Your task to perform on an android device: Show me popular games on the Play Store Image 0: 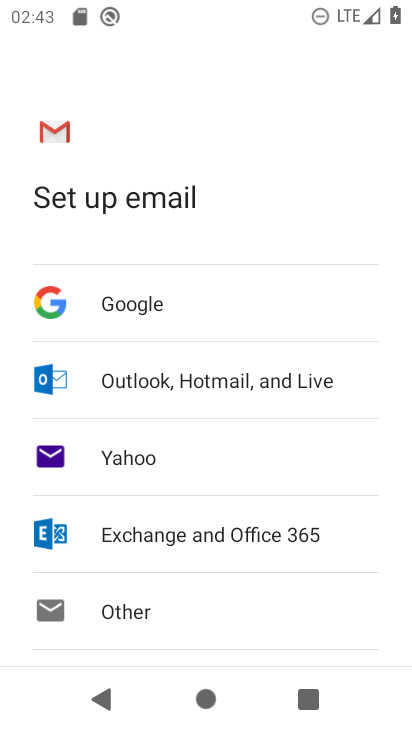
Step 0: press home button
Your task to perform on an android device: Show me popular games on the Play Store Image 1: 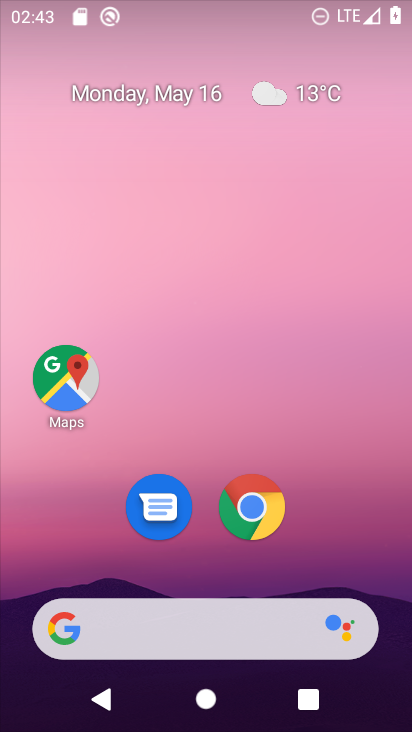
Step 1: drag from (335, 536) to (245, 55)
Your task to perform on an android device: Show me popular games on the Play Store Image 2: 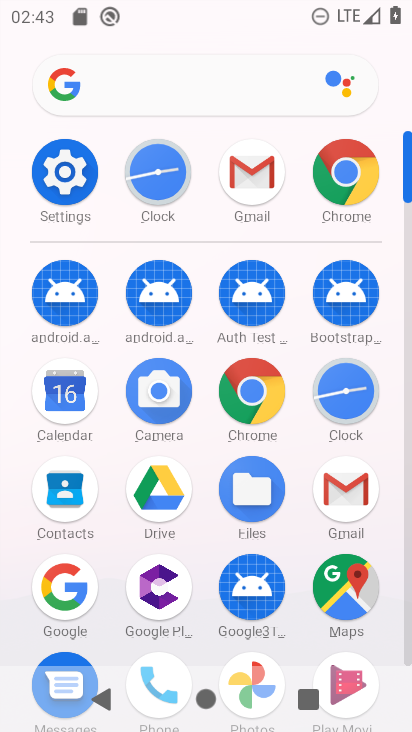
Step 2: drag from (315, 588) to (257, 141)
Your task to perform on an android device: Show me popular games on the Play Store Image 3: 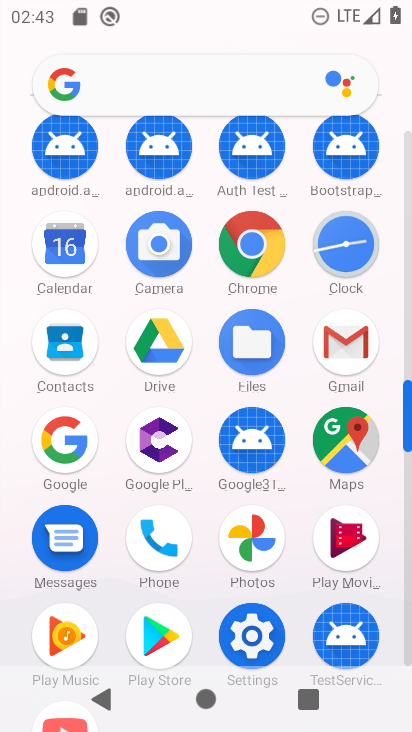
Step 3: click (168, 601)
Your task to perform on an android device: Show me popular games on the Play Store Image 4: 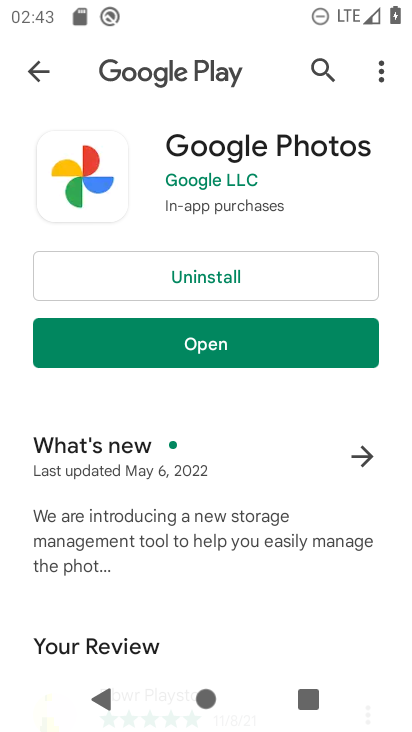
Step 4: click (7, 75)
Your task to perform on an android device: Show me popular games on the Play Store Image 5: 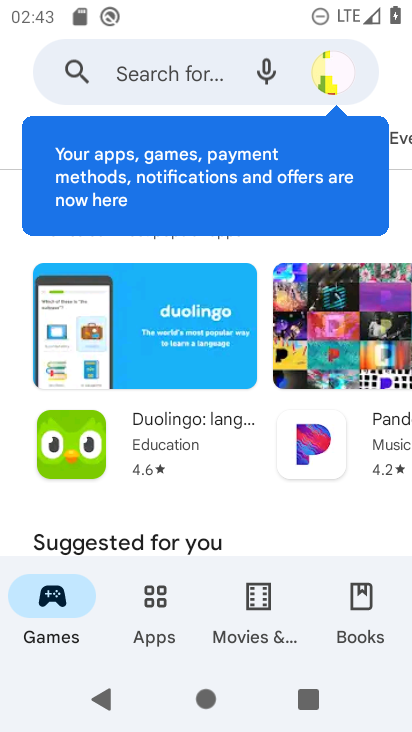
Step 5: click (59, 602)
Your task to perform on an android device: Show me popular games on the Play Store Image 6: 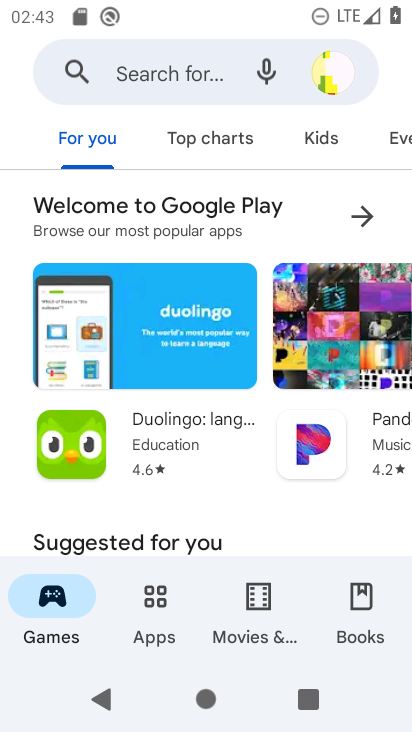
Step 6: click (190, 130)
Your task to perform on an android device: Show me popular games on the Play Store Image 7: 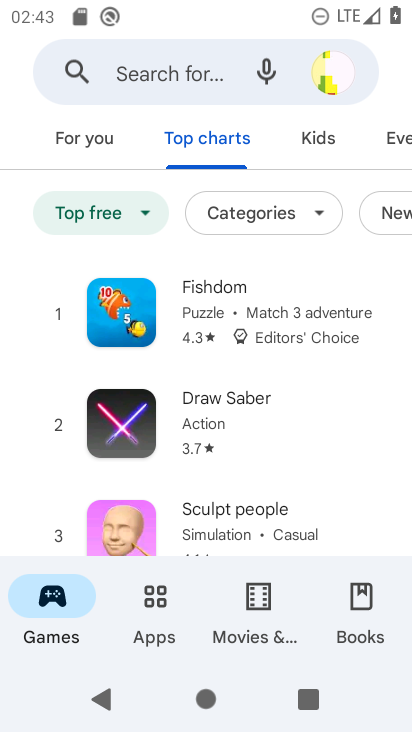
Step 7: task complete